Your task to perform on an android device: Is it going to rain today? Image 0: 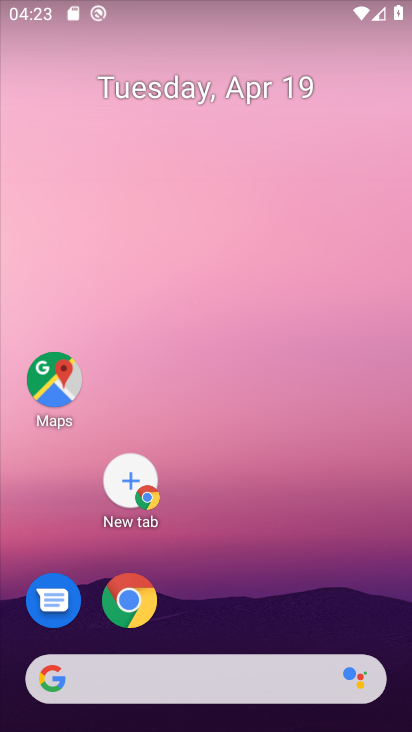
Step 0: click (104, 670)
Your task to perform on an android device: Is it going to rain today? Image 1: 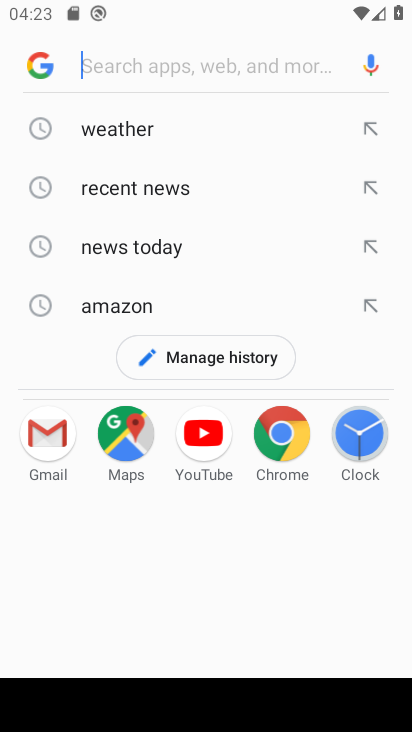
Step 1: click (46, 80)
Your task to perform on an android device: Is it going to rain today? Image 2: 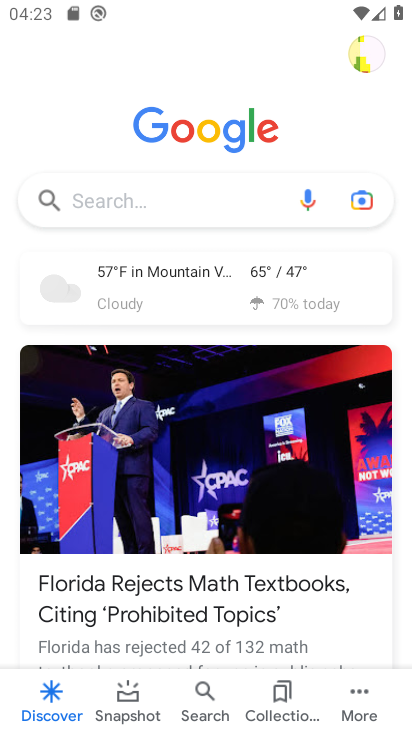
Step 2: click (242, 292)
Your task to perform on an android device: Is it going to rain today? Image 3: 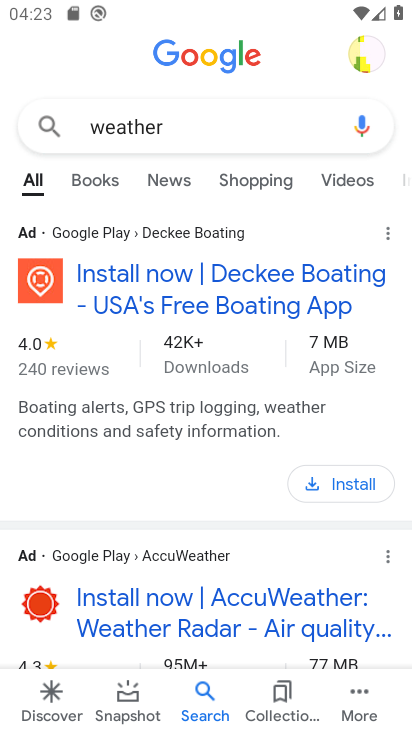
Step 3: task complete